Your task to perform on an android device: Add usb-a to the cart on costco Image 0: 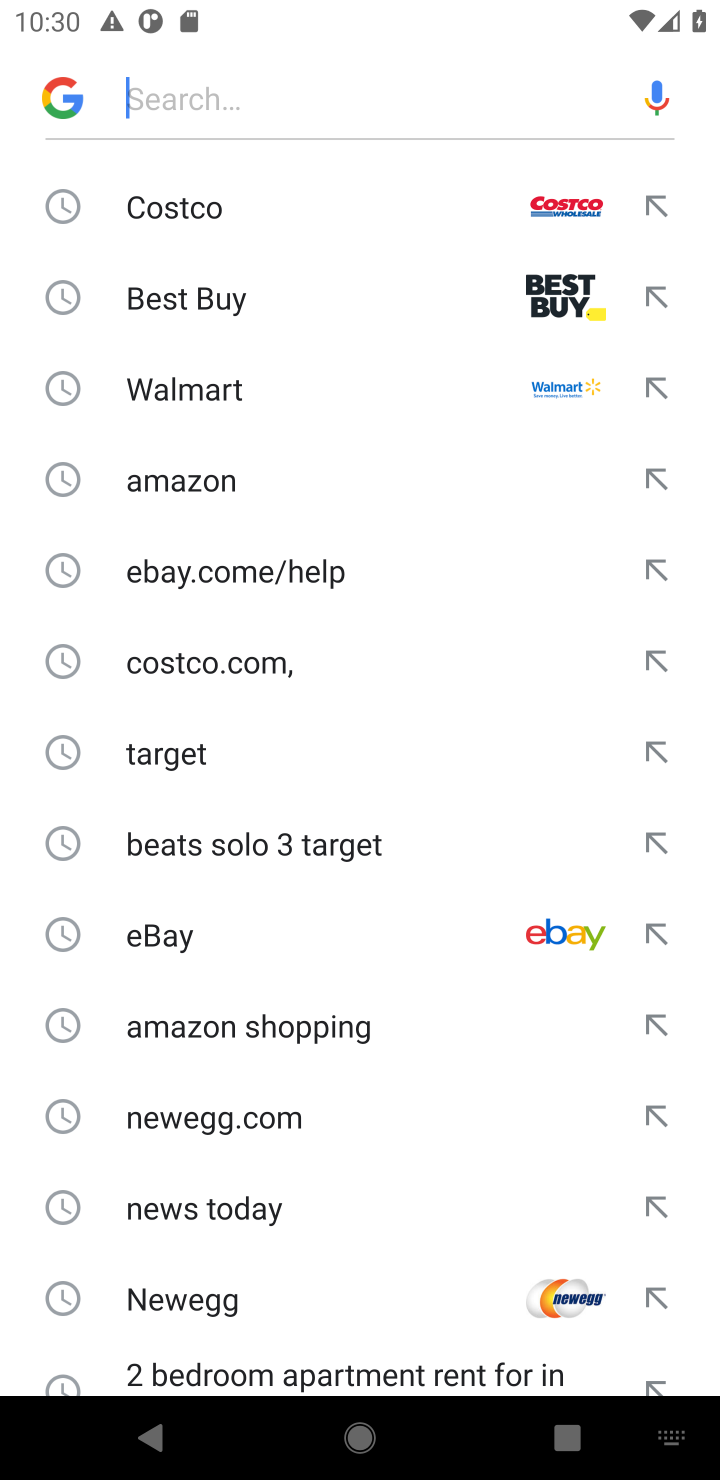
Step 0: click (219, 200)
Your task to perform on an android device: Add usb-a to the cart on costco Image 1: 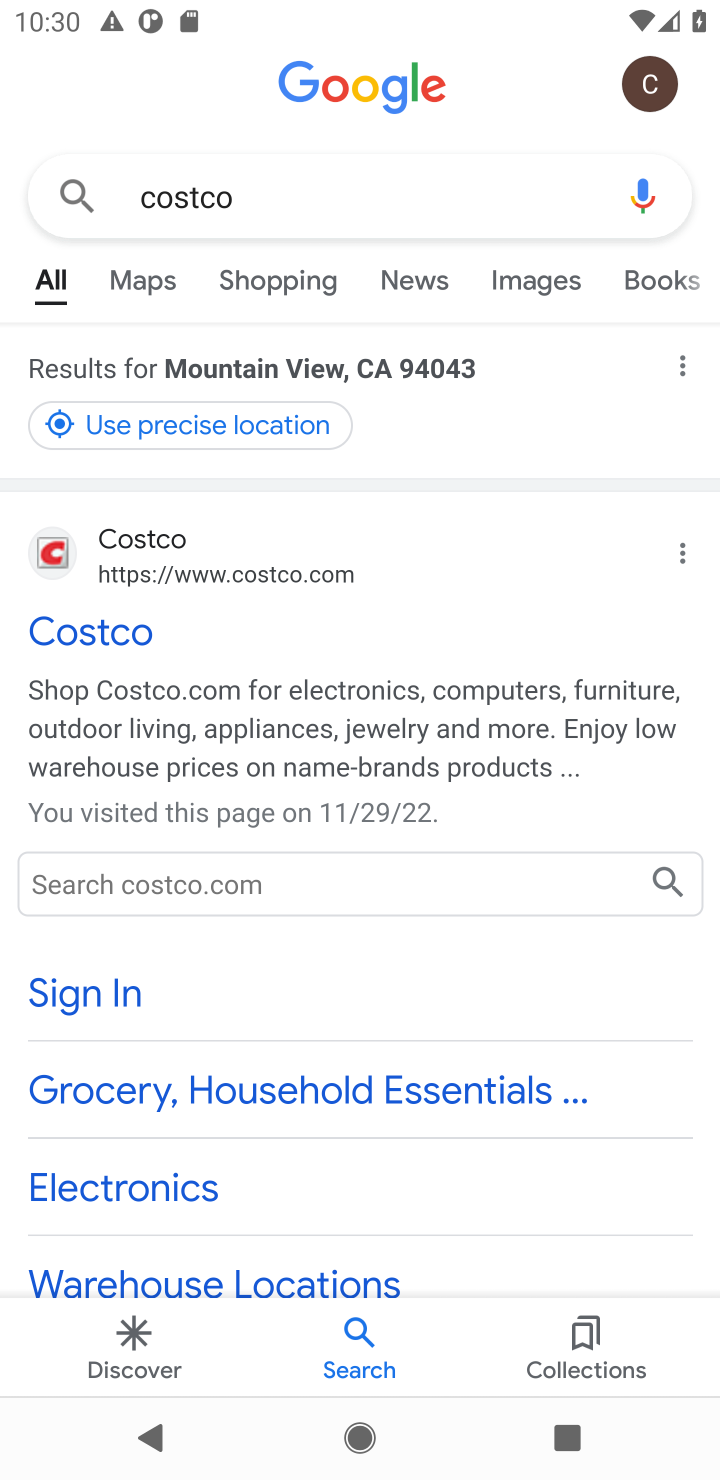
Step 1: click (91, 622)
Your task to perform on an android device: Add usb-a to the cart on costco Image 2: 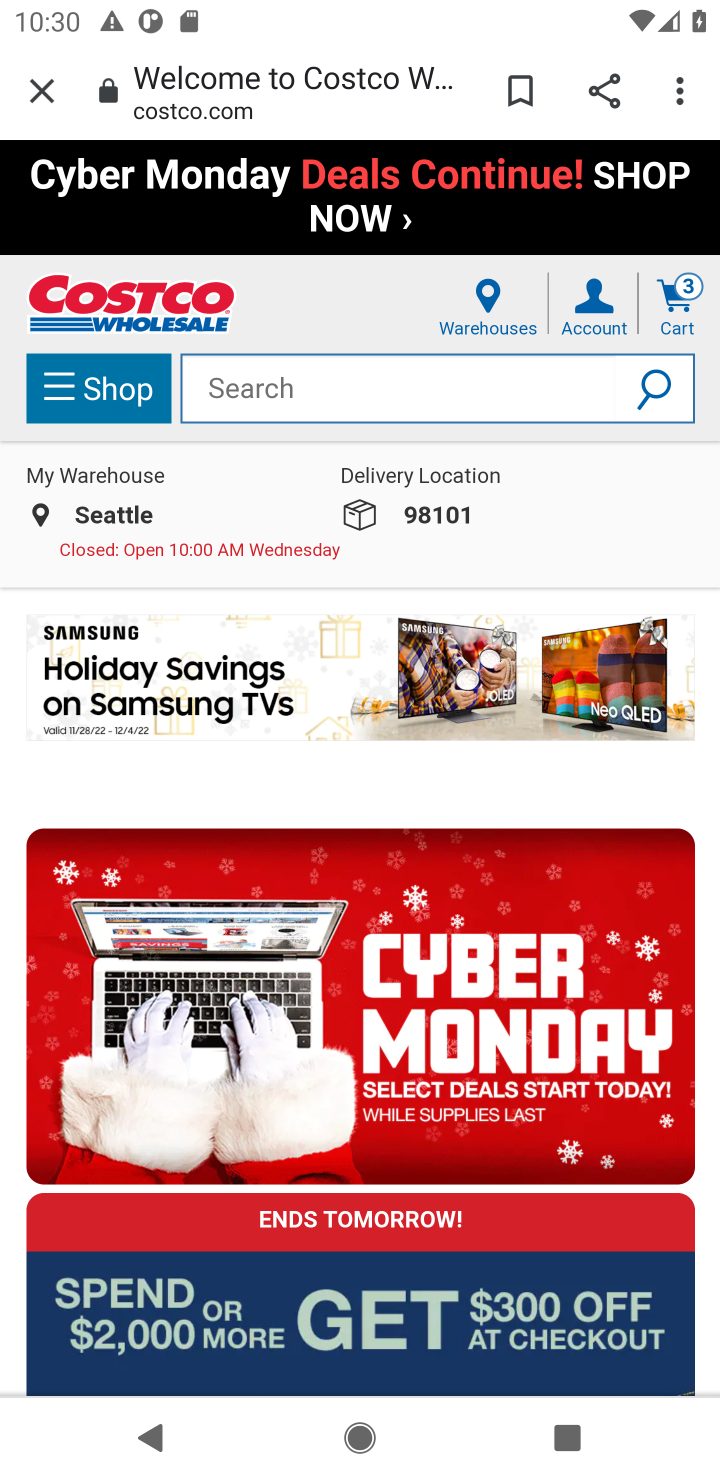
Step 2: task complete